Your task to perform on an android device: Go to Reddit.com Image 0: 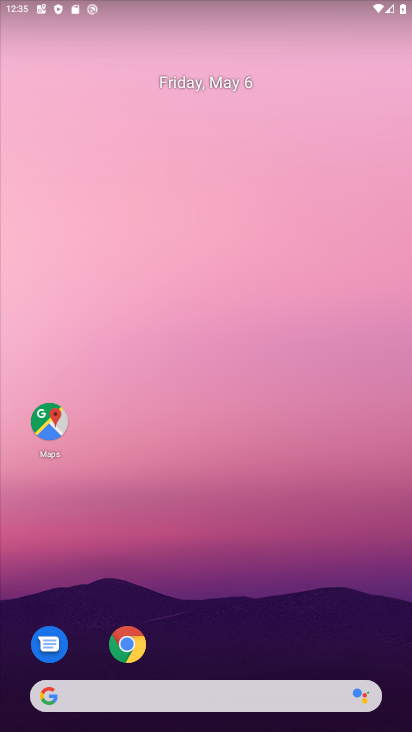
Step 0: click (184, 690)
Your task to perform on an android device: Go to Reddit.com Image 1: 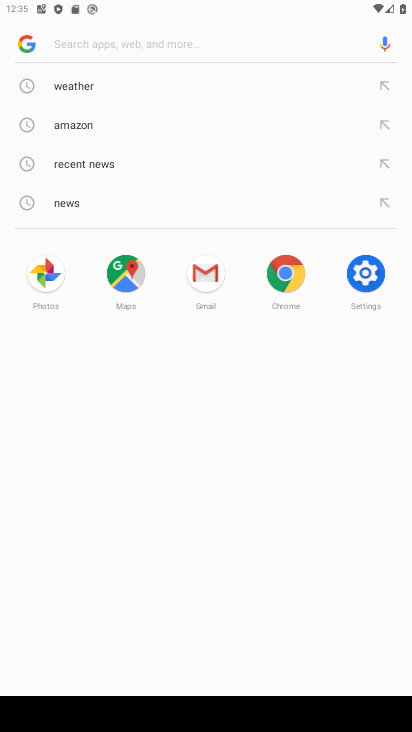
Step 1: type "reddit.com"
Your task to perform on an android device: Go to Reddit.com Image 2: 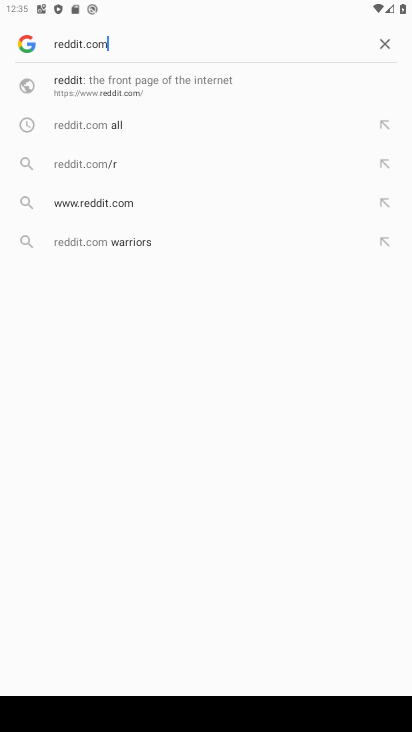
Step 2: click (210, 85)
Your task to perform on an android device: Go to Reddit.com Image 3: 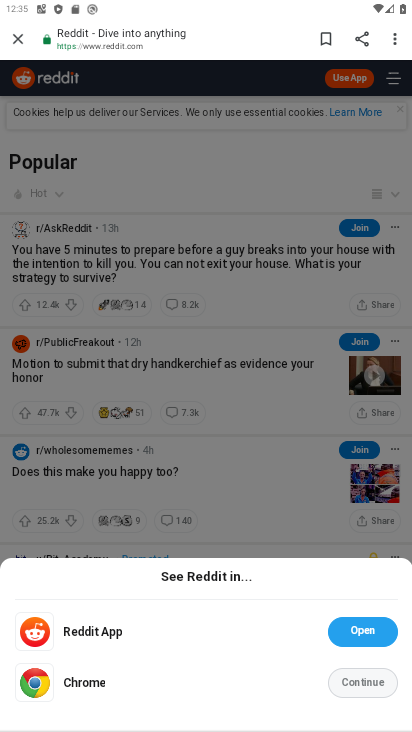
Step 3: task complete